Your task to perform on an android device: Open CNN.com Image 0: 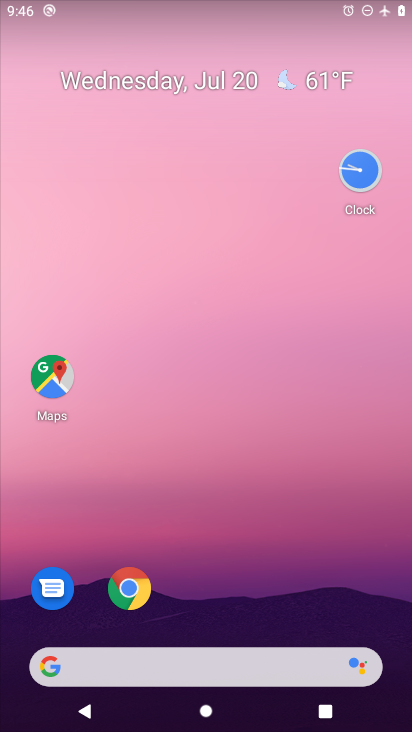
Step 0: click (111, 662)
Your task to perform on an android device: Open CNN.com Image 1: 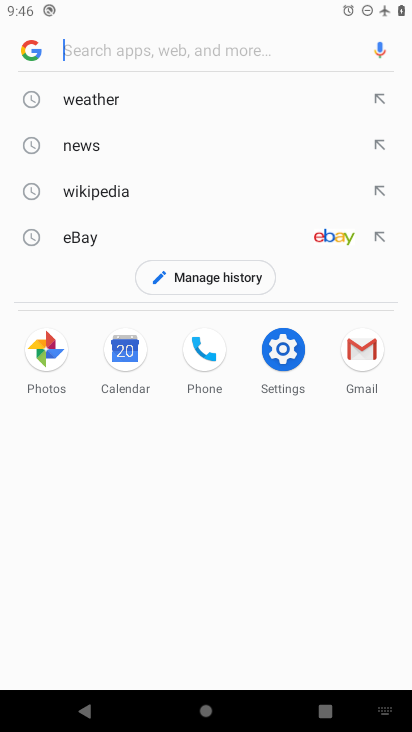
Step 1: type " CNN.com"
Your task to perform on an android device: Open CNN.com Image 2: 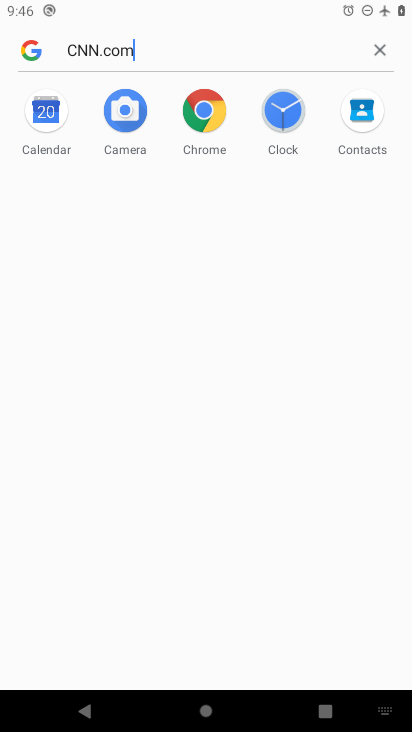
Step 2: type ""
Your task to perform on an android device: Open CNN.com Image 3: 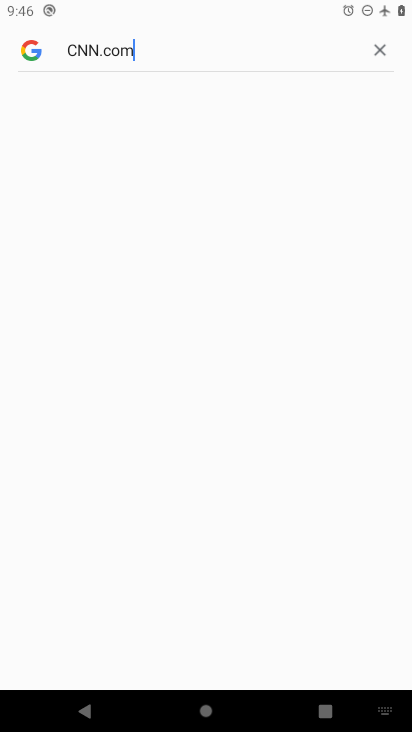
Step 3: type ""
Your task to perform on an android device: Open CNN.com Image 4: 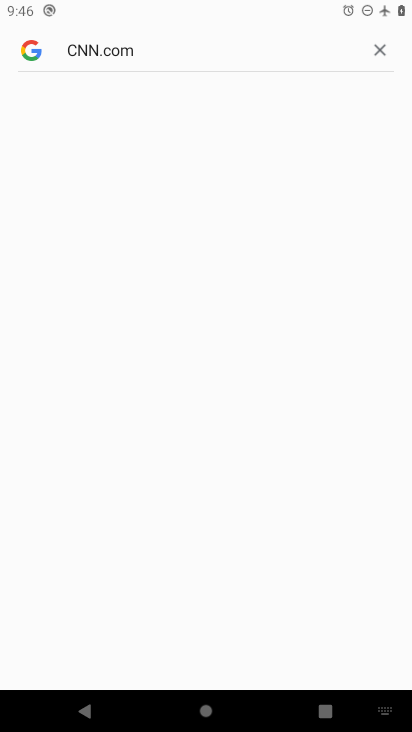
Step 4: type ""
Your task to perform on an android device: Open CNN.com Image 5: 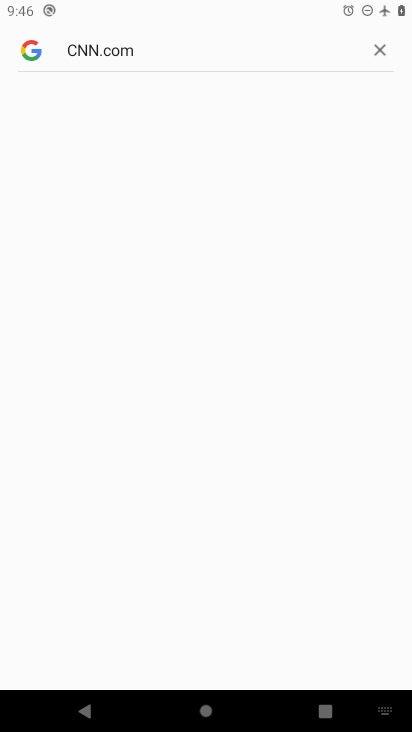
Step 5: task complete